Your task to perform on an android device: Go to privacy settings Image 0: 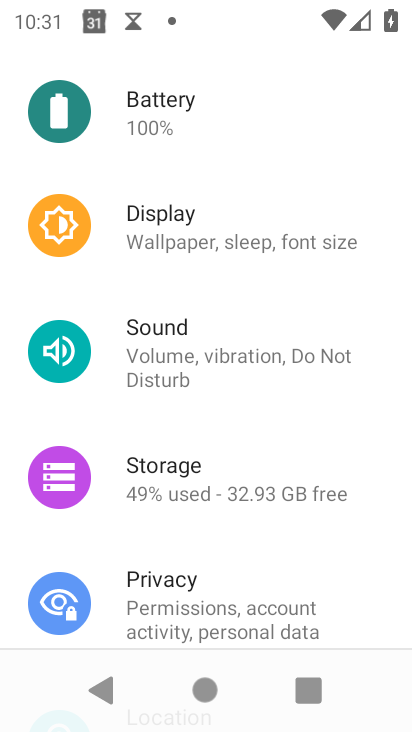
Step 0: click (248, 601)
Your task to perform on an android device: Go to privacy settings Image 1: 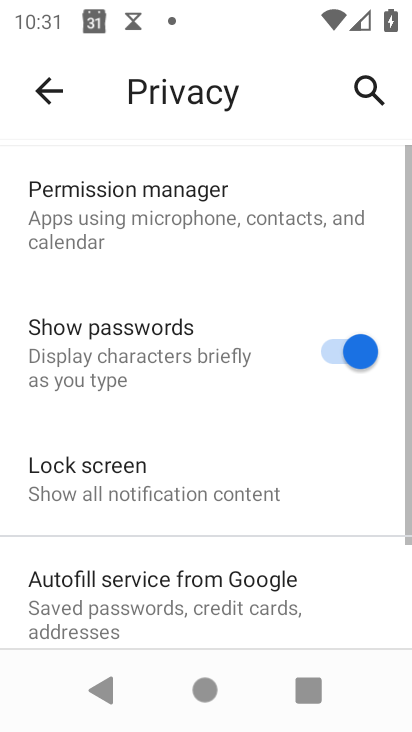
Step 1: task complete